Your task to perform on an android device: allow notifications from all sites in the chrome app Image 0: 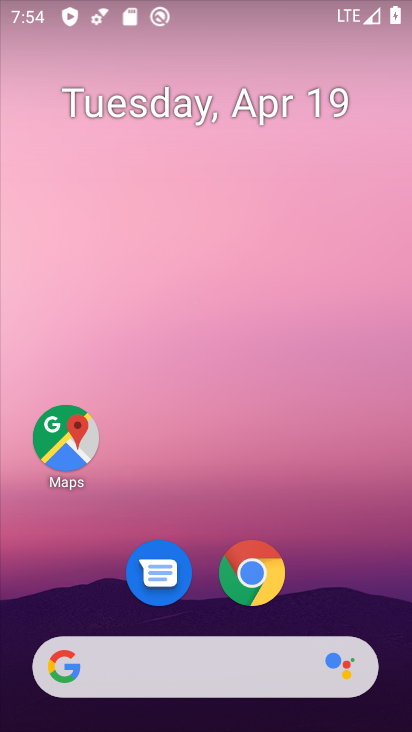
Step 0: drag from (359, 578) to (326, 142)
Your task to perform on an android device: allow notifications from all sites in the chrome app Image 1: 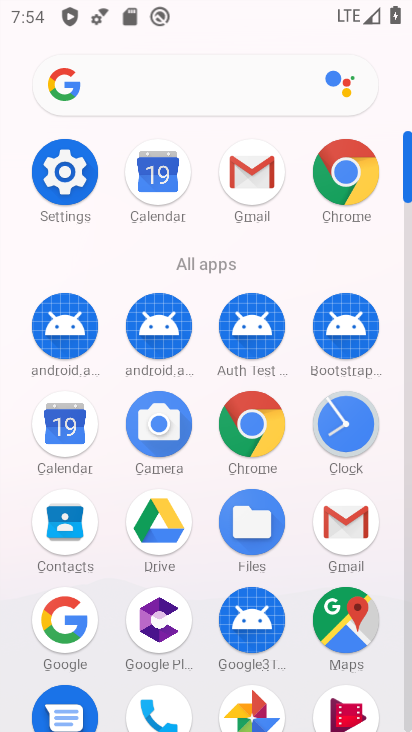
Step 1: click (240, 440)
Your task to perform on an android device: allow notifications from all sites in the chrome app Image 2: 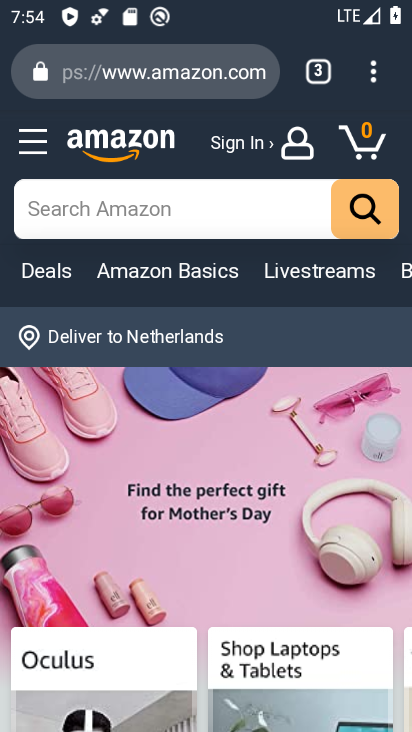
Step 2: drag from (377, 67) to (145, 573)
Your task to perform on an android device: allow notifications from all sites in the chrome app Image 3: 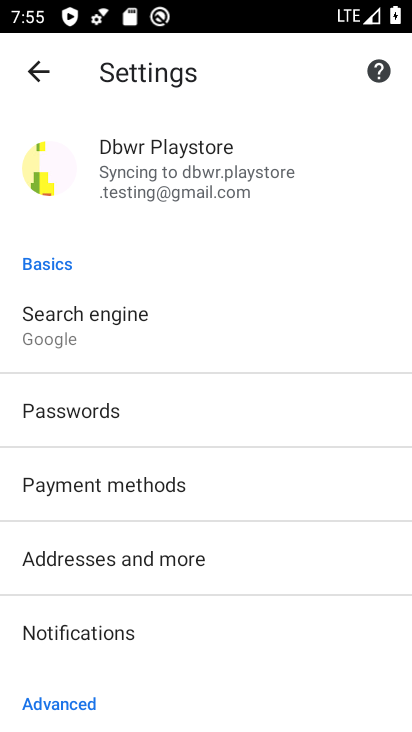
Step 3: drag from (246, 581) to (245, 250)
Your task to perform on an android device: allow notifications from all sites in the chrome app Image 4: 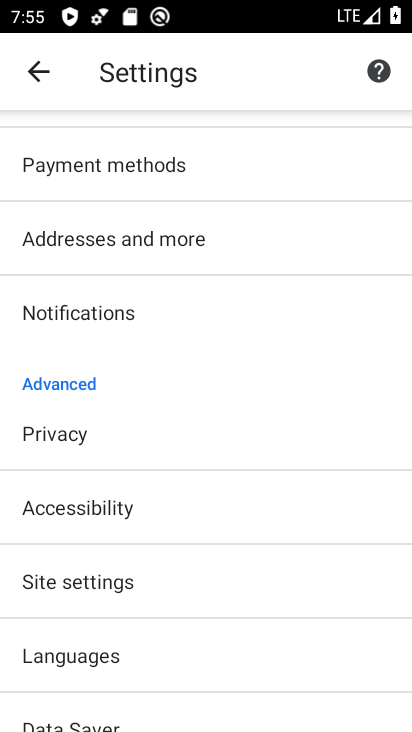
Step 4: click (80, 313)
Your task to perform on an android device: allow notifications from all sites in the chrome app Image 5: 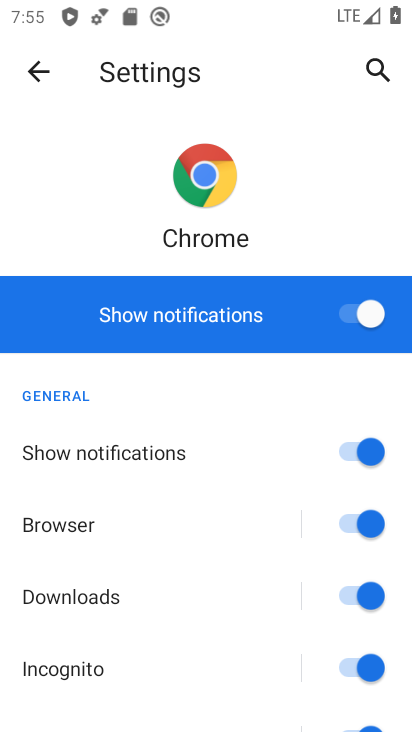
Step 5: task complete